Your task to perform on an android device: Go to Yahoo.com Image 0: 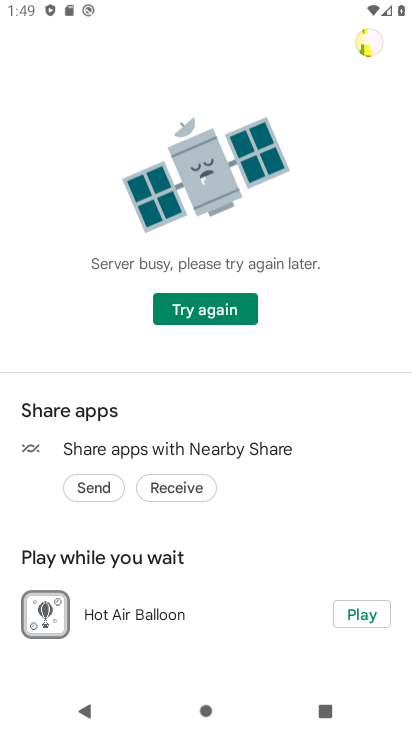
Step 0: press home button
Your task to perform on an android device: Go to Yahoo.com Image 1: 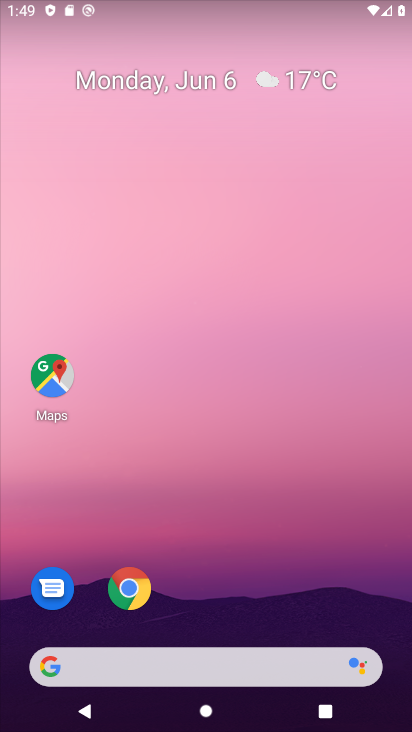
Step 1: click (120, 608)
Your task to perform on an android device: Go to Yahoo.com Image 2: 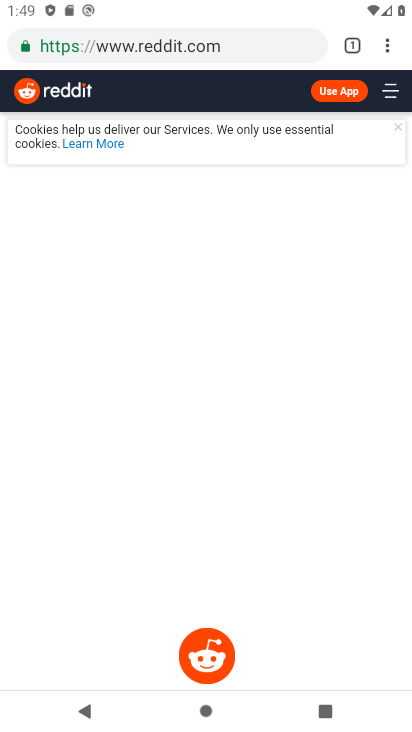
Step 2: click (204, 45)
Your task to perform on an android device: Go to Yahoo.com Image 3: 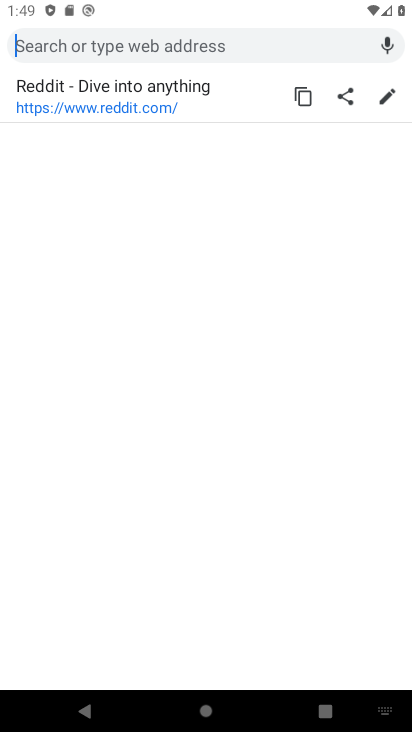
Step 3: type "yahoo.com"
Your task to perform on an android device: Go to Yahoo.com Image 4: 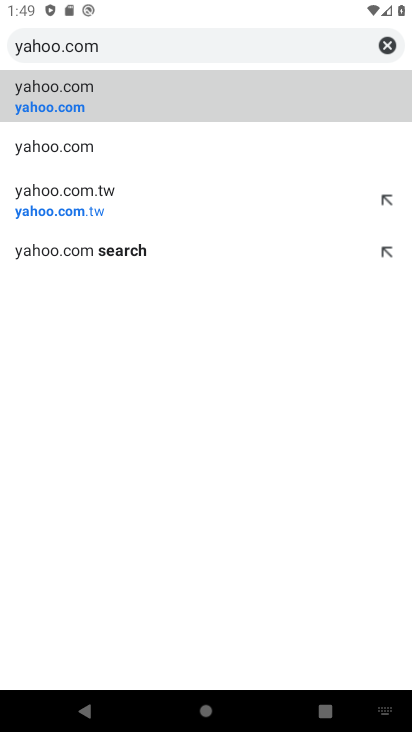
Step 4: click (88, 99)
Your task to perform on an android device: Go to Yahoo.com Image 5: 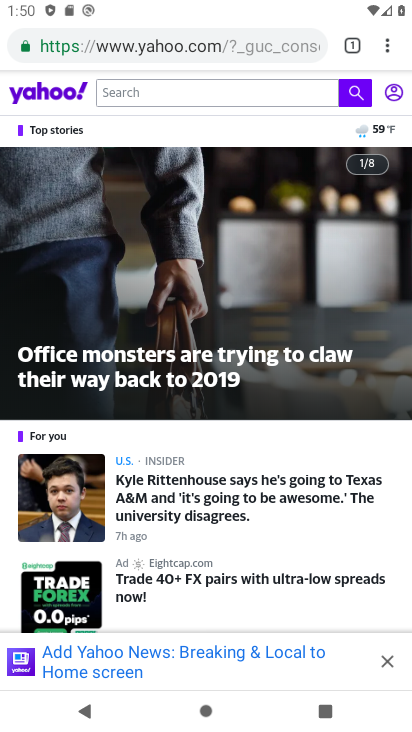
Step 5: task complete